Your task to perform on an android device: Search for the best rated phone case for the iPhone 8. Image 0: 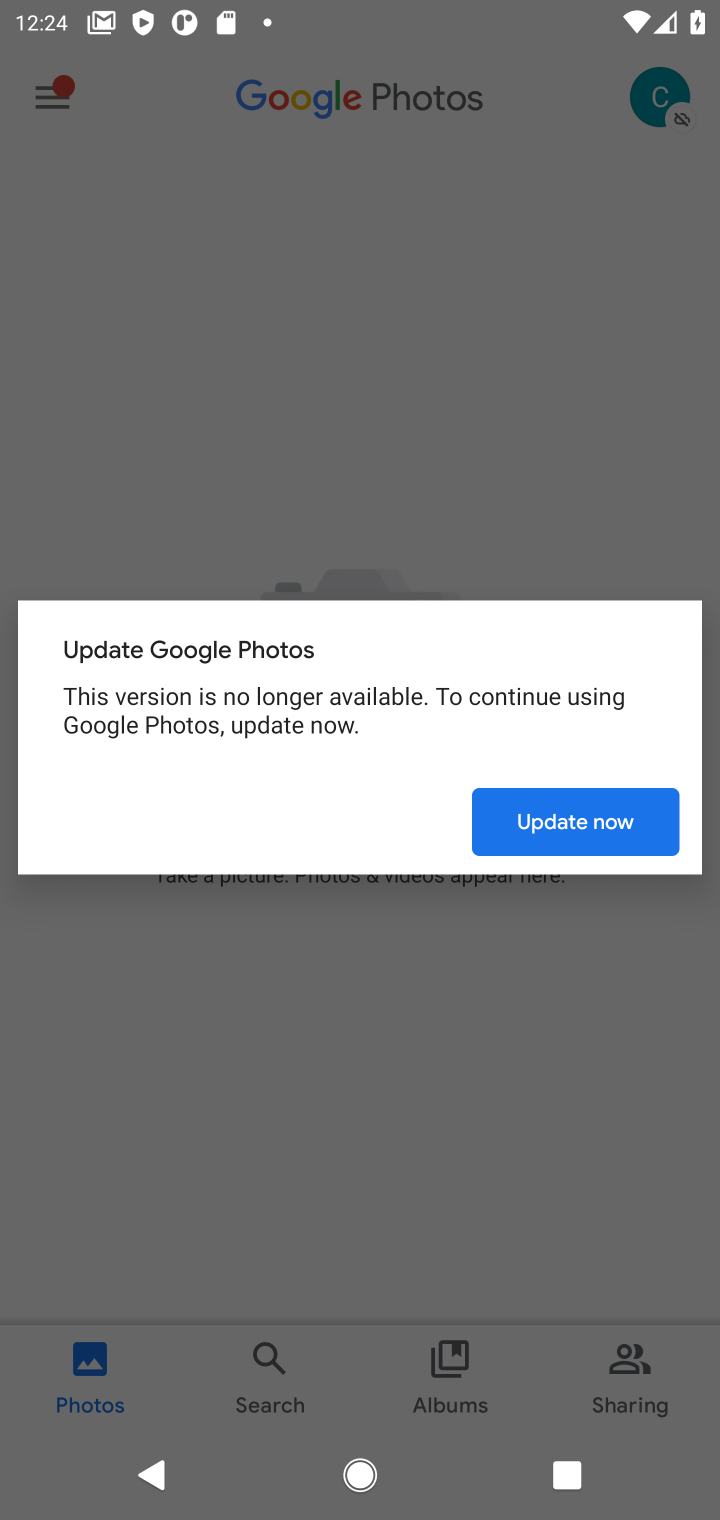
Step 0: press home button
Your task to perform on an android device: Search for the best rated phone case for the iPhone 8. Image 1: 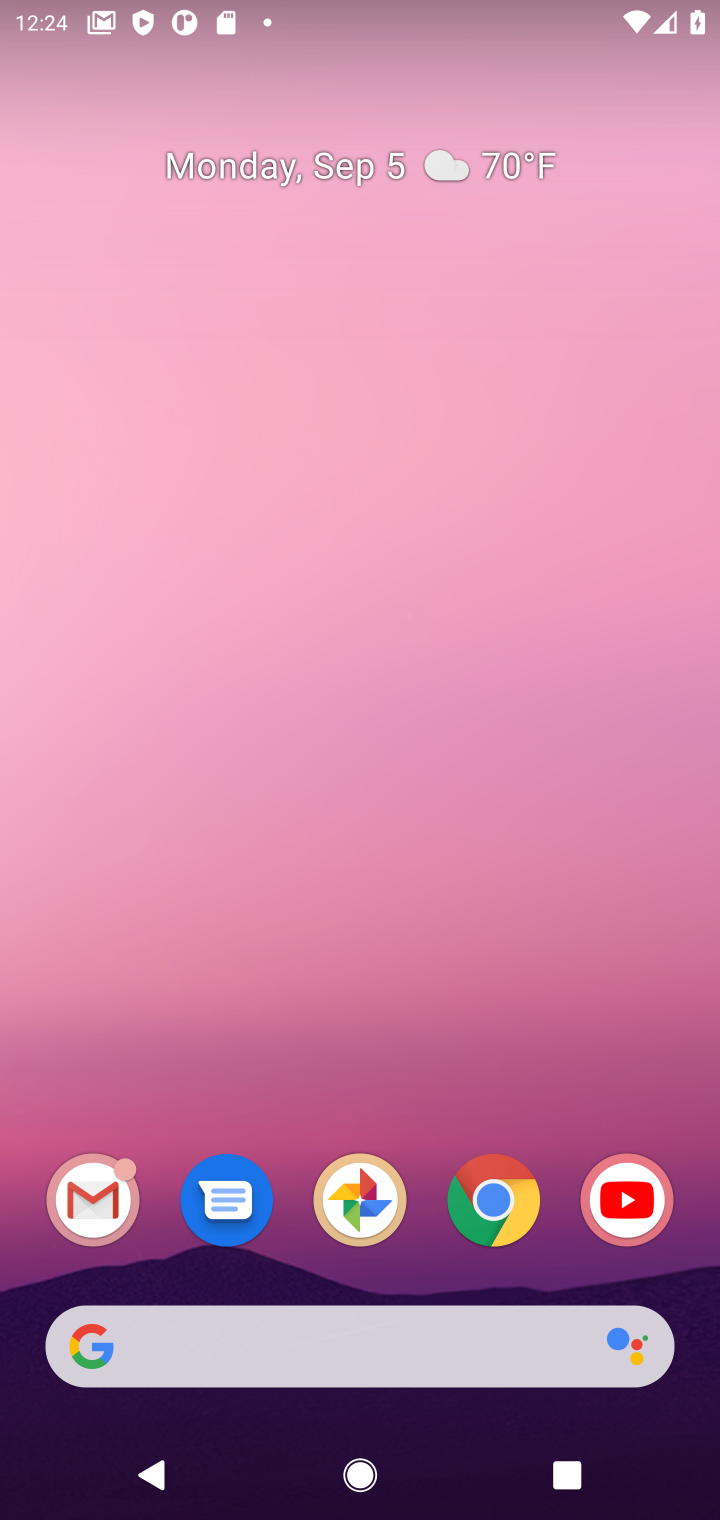
Step 1: click (330, 1222)
Your task to perform on an android device: Search for the best rated phone case for the iPhone 8. Image 2: 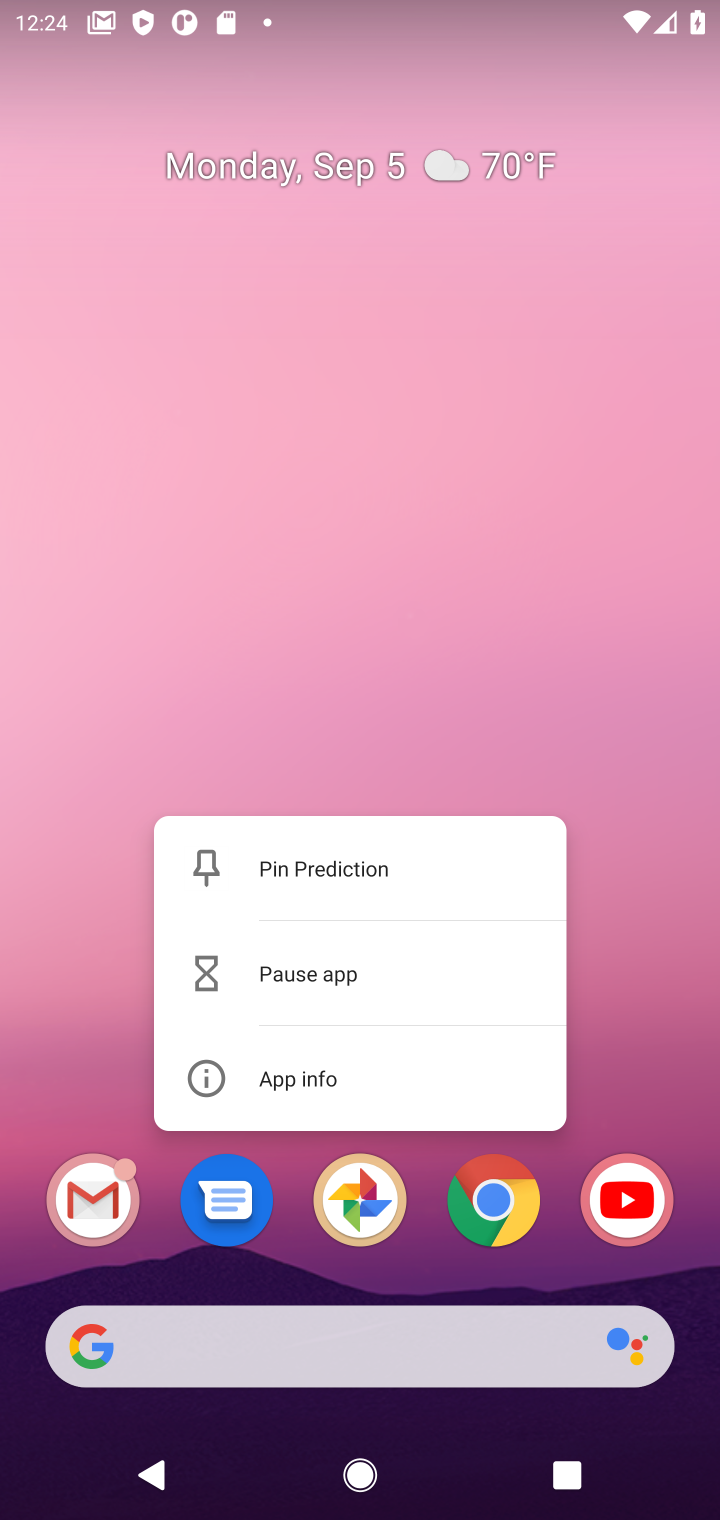
Step 2: click (497, 469)
Your task to perform on an android device: Search for the best rated phone case for the iPhone 8. Image 3: 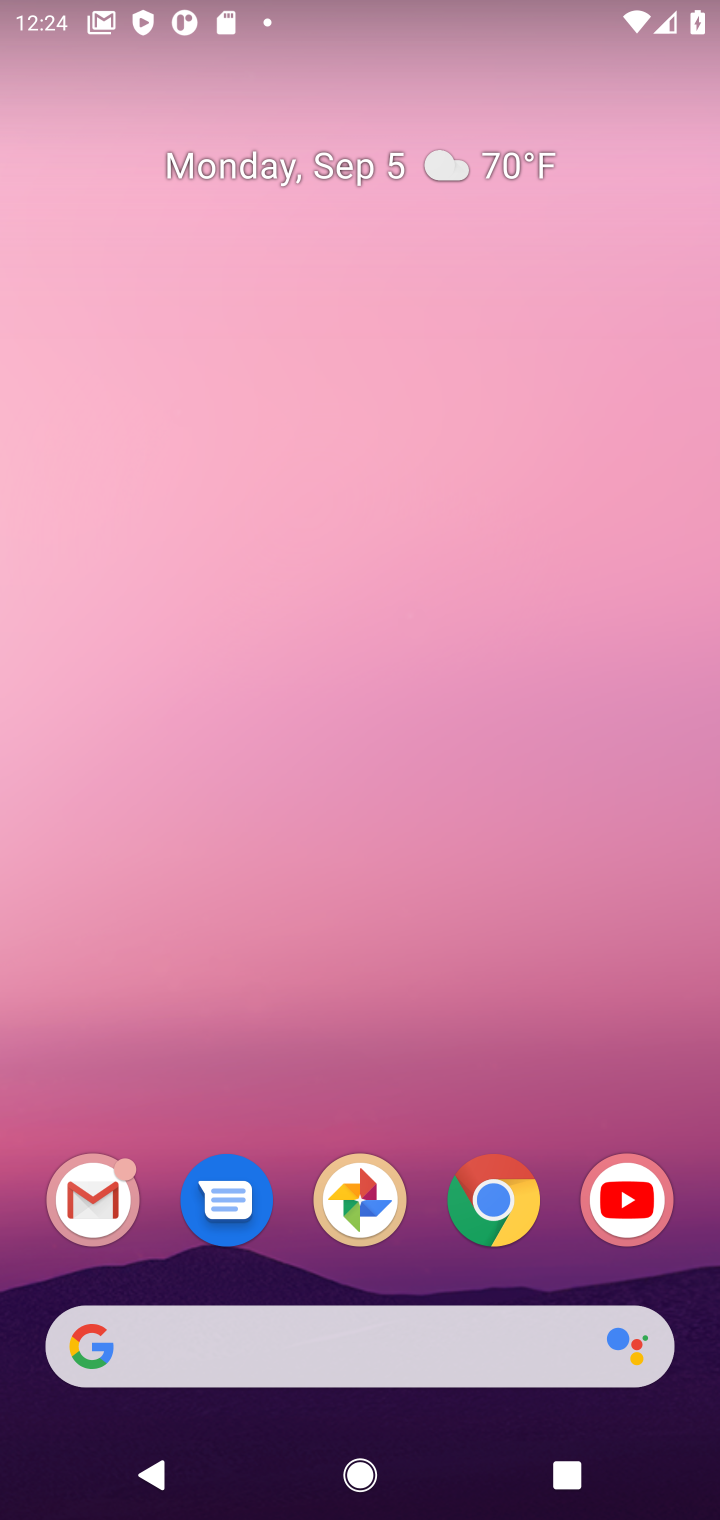
Step 3: click (480, 1199)
Your task to perform on an android device: Search for the best rated phone case for the iPhone 8. Image 4: 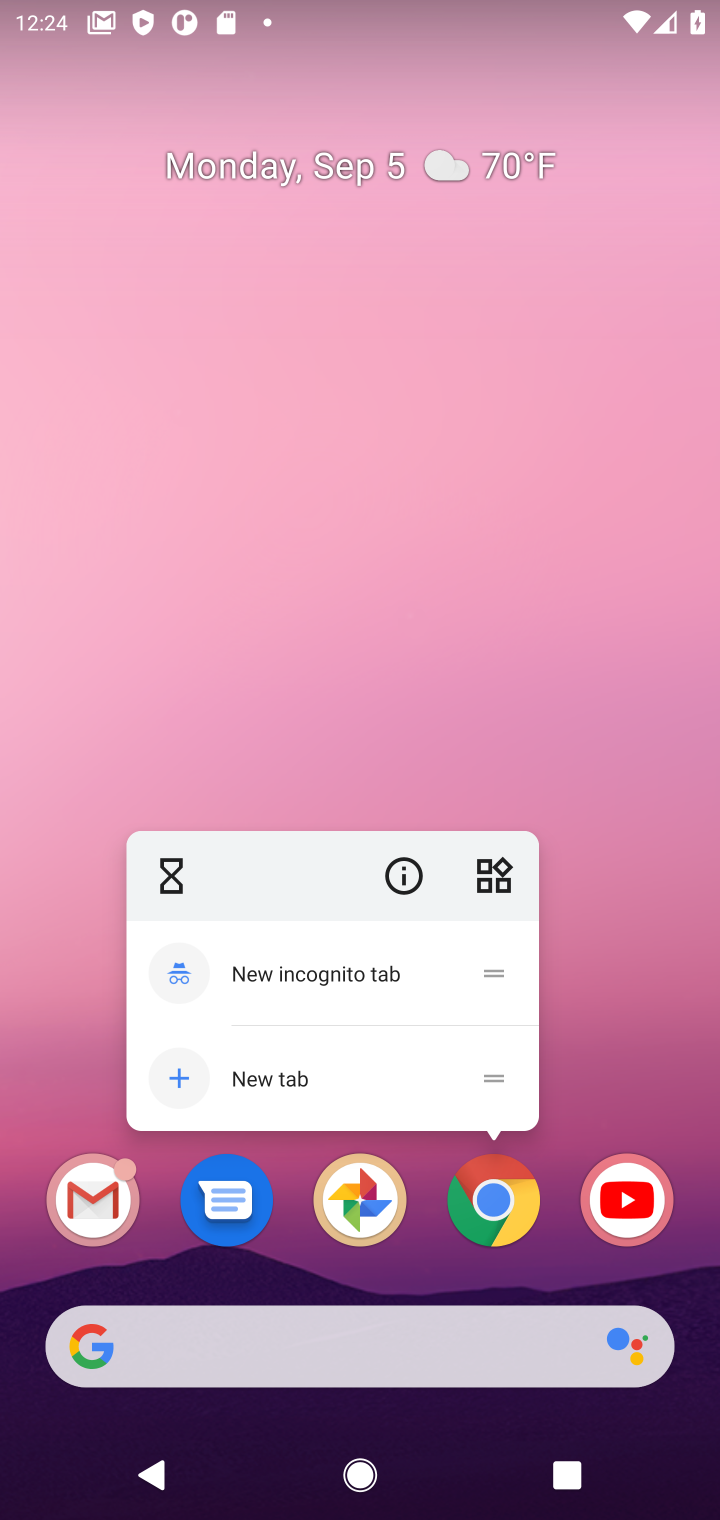
Step 4: click (480, 1199)
Your task to perform on an android device: Search for the best rated phone case for the iPhone 8. Image 5: 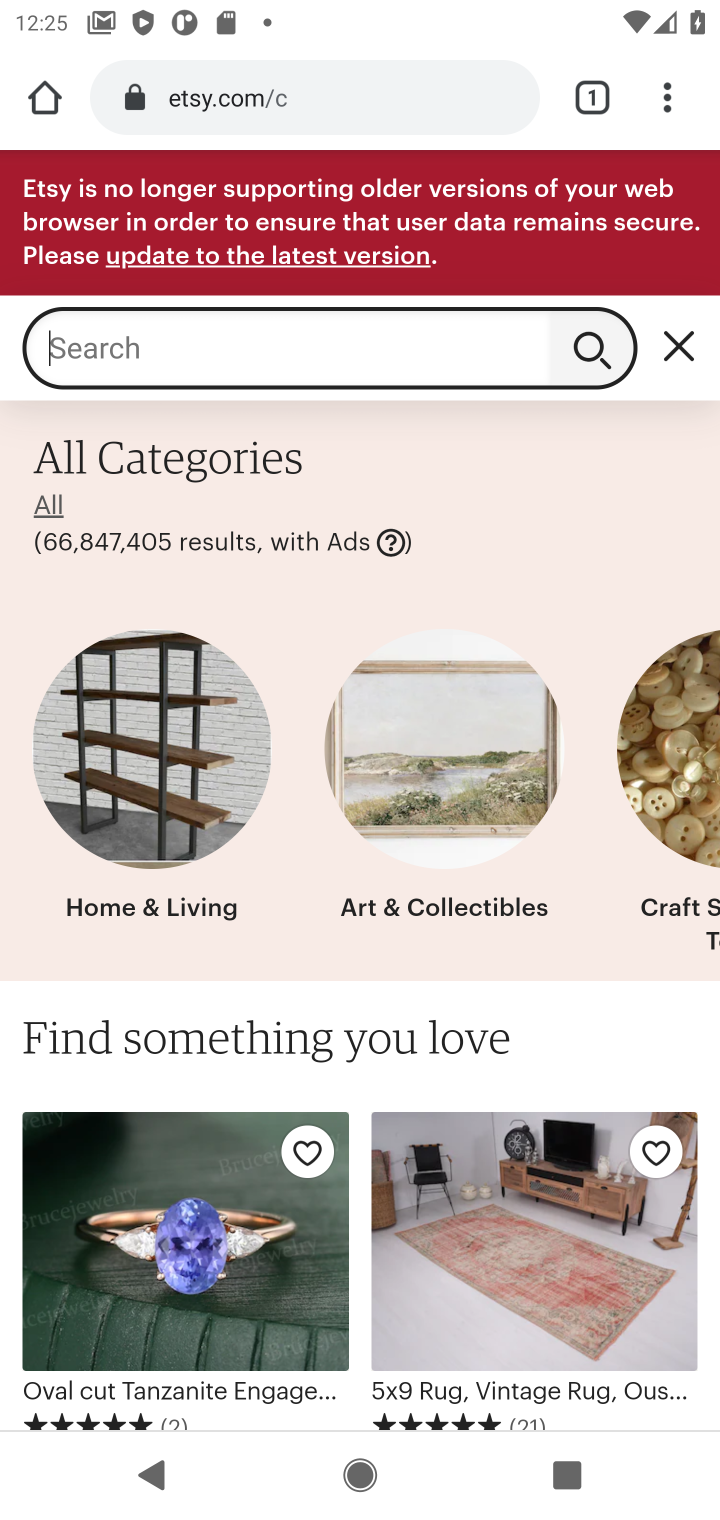
Step 5: click (410, 109)
Your task to perform on an android device: Search for the best rated phone case for the iPhone 8. Image 6: 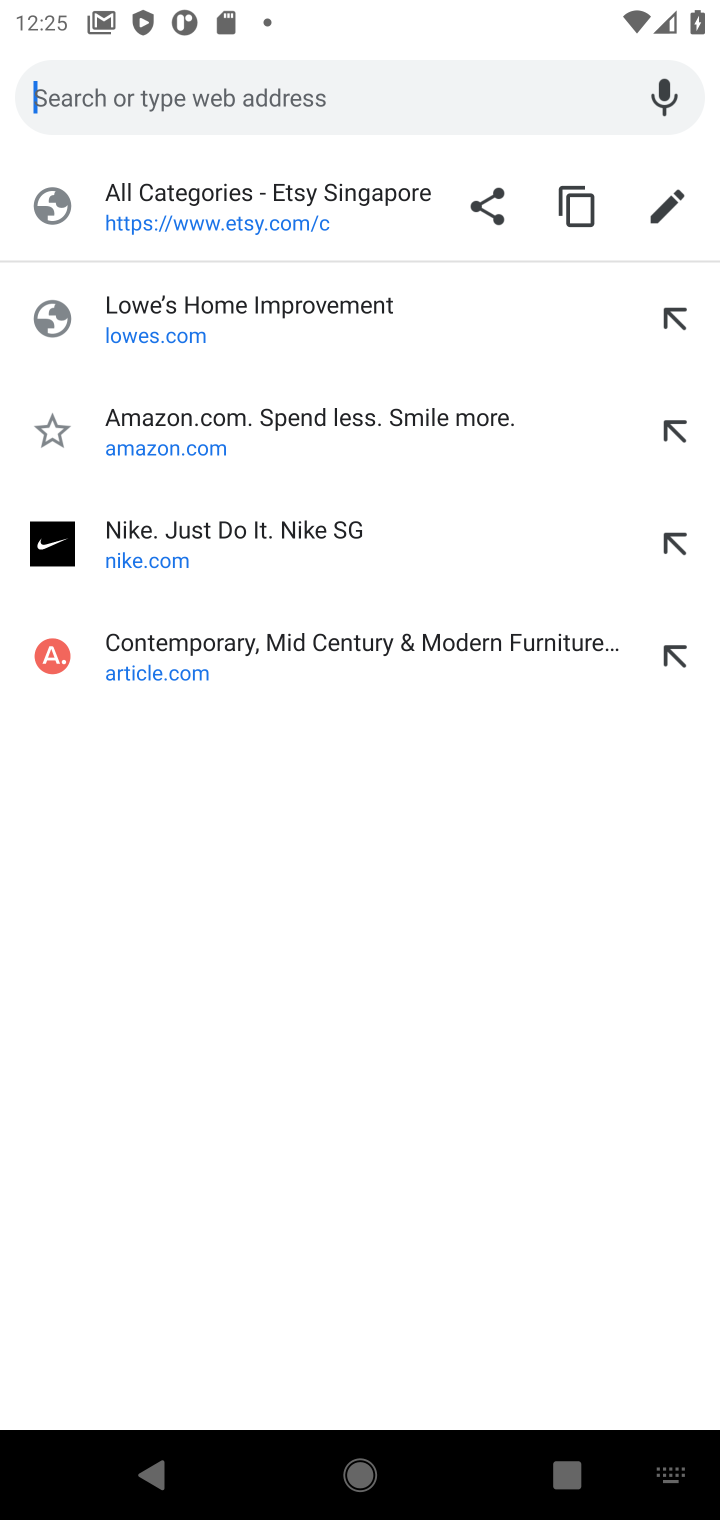
Step 6: type "best rated phone case for iphone 8"
Your task to perform on an android device: Search for the best rated phone case for the iPhone 8. Image 7: 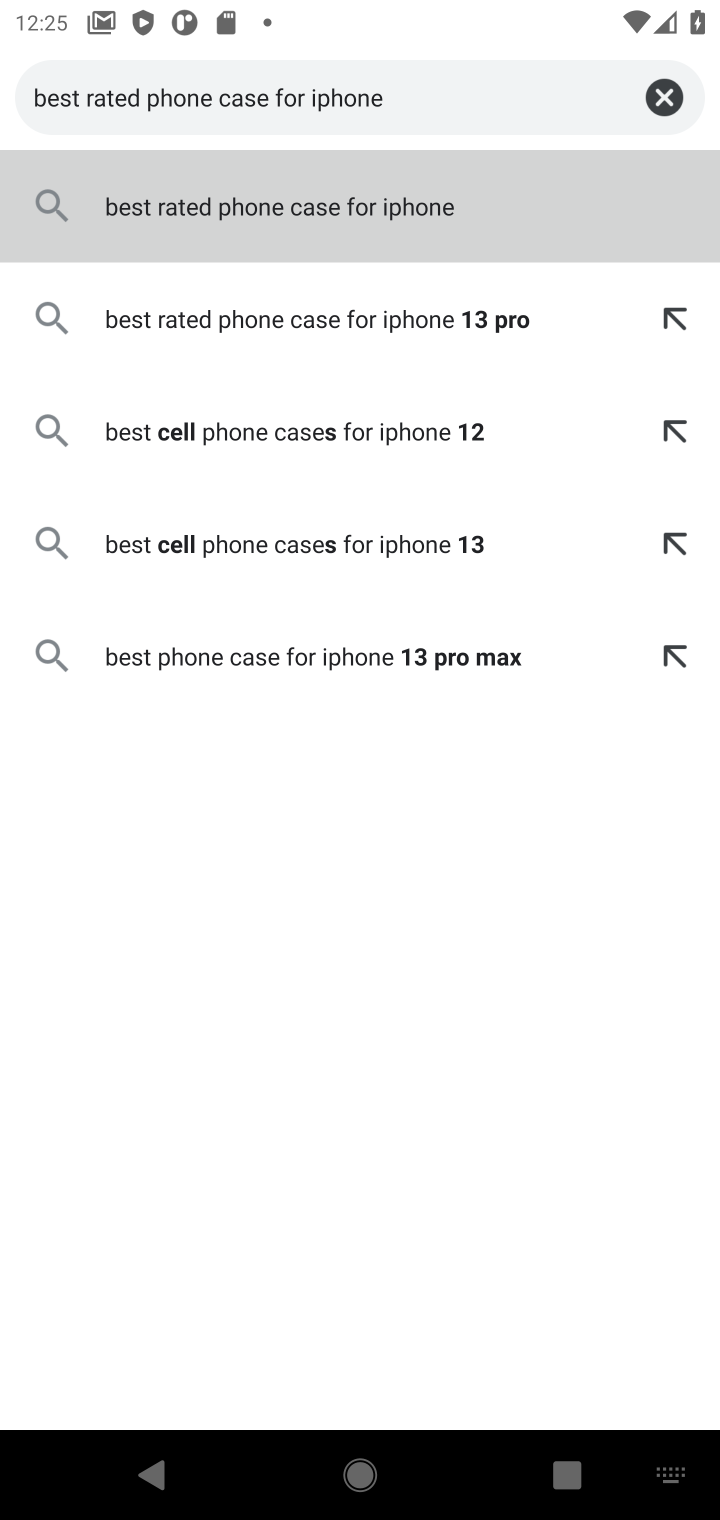
Step 7: type " 8"
Your task to perform on an android device: Search for the best rated phone case for the iPhone 8. Image 8: 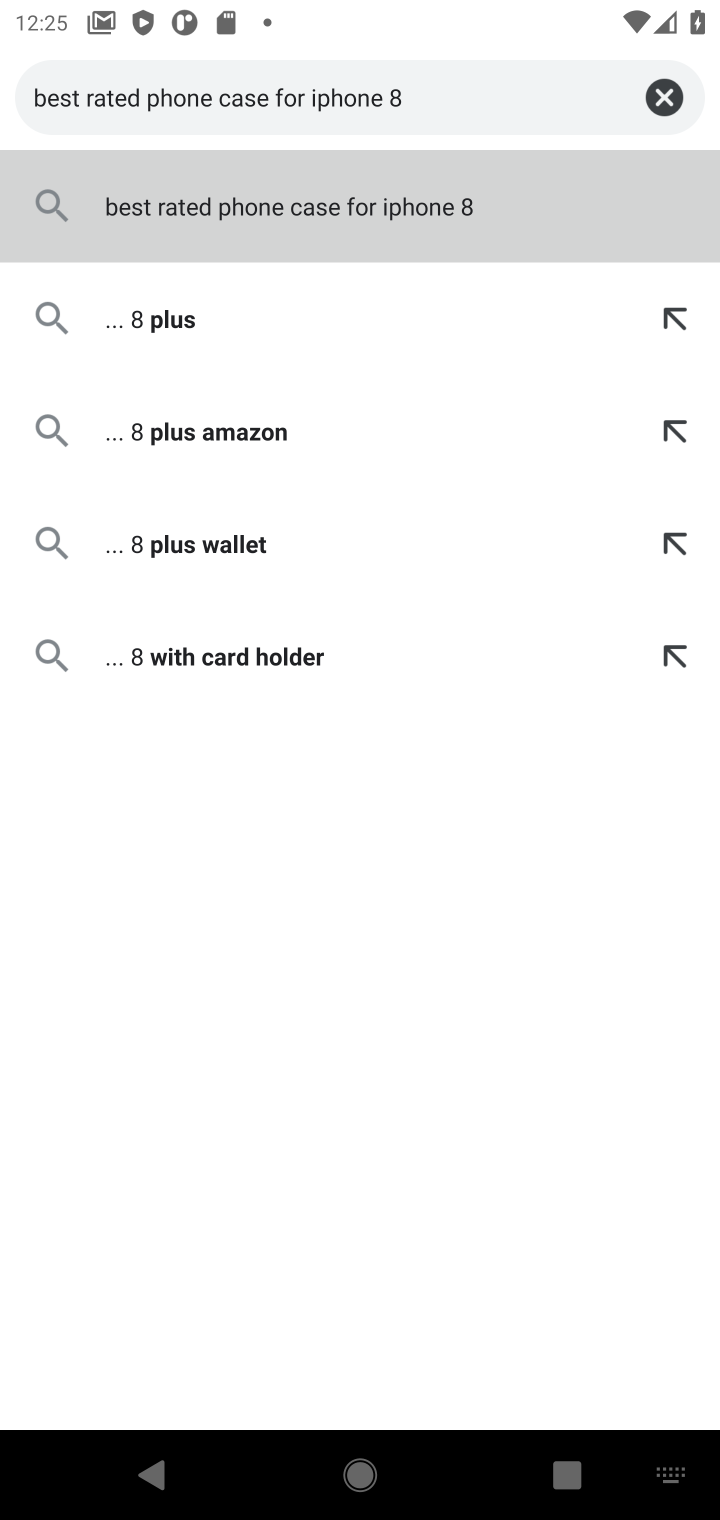
Step 8: click (477, 223)
Your task to perform on an android device: Search for the best rated phone case for the iPhone 8. Image 9: 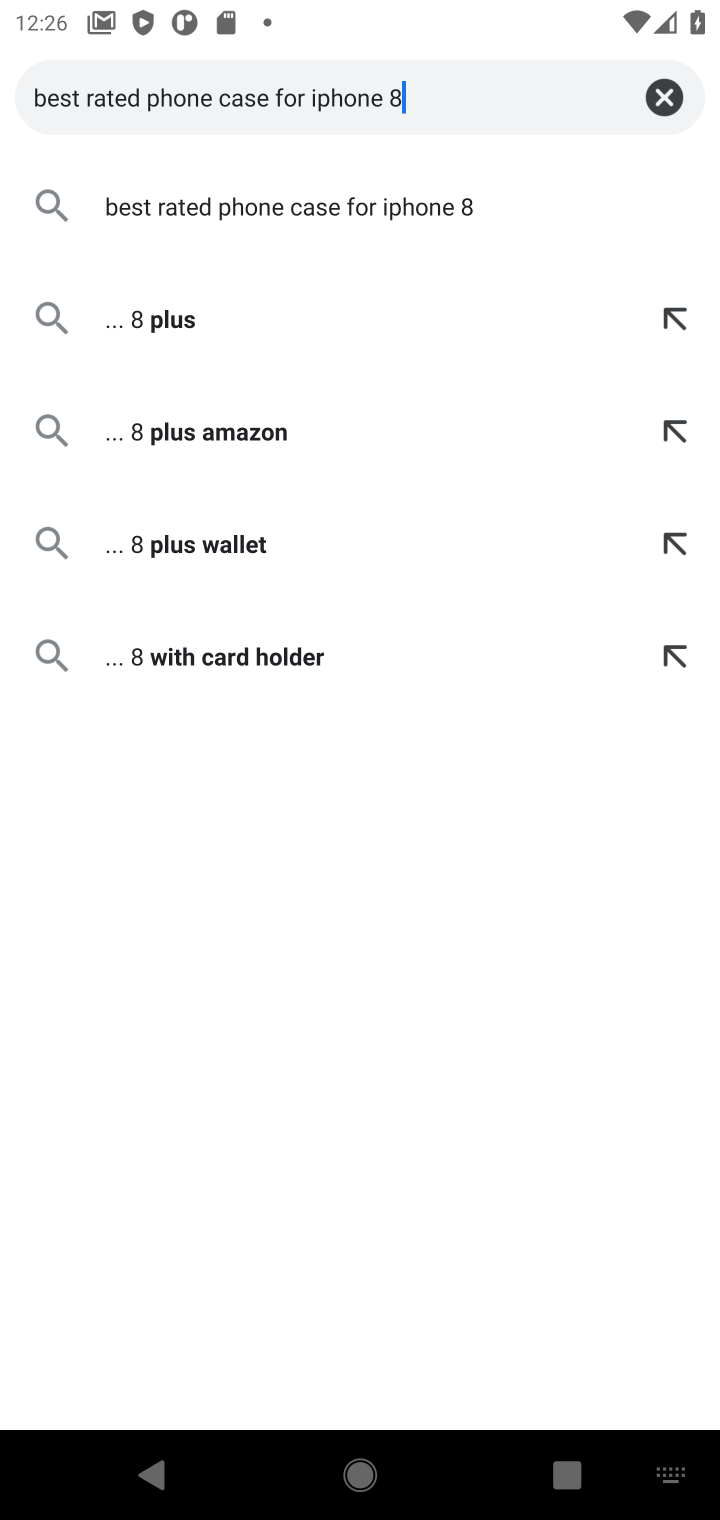
Step 9: click (301, 209)
Your task to perform on an android device: Search for the best rated phone case for the iPhone 8. Image 10: 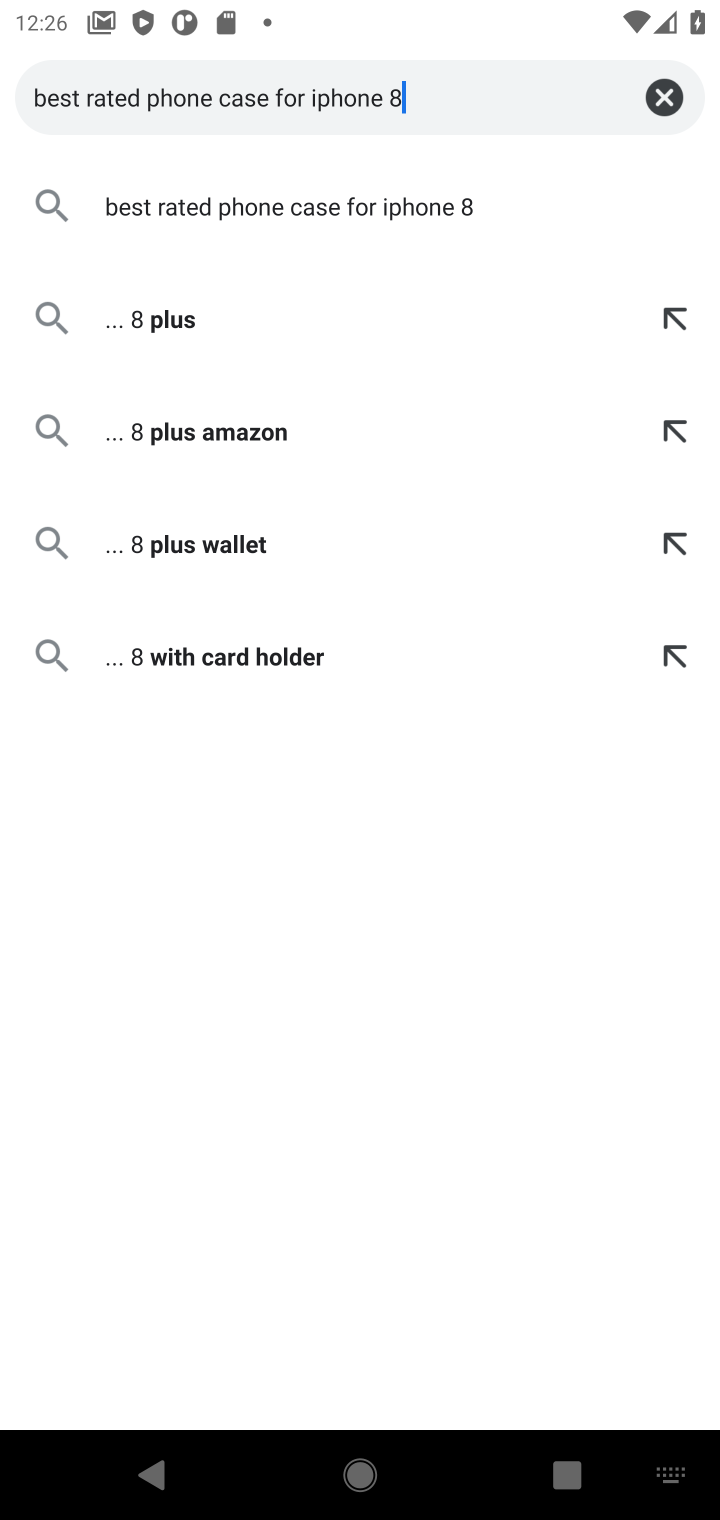
Step 10: click (301, 209)
Your task to perform on an android device: Search for the best rated phone case for the iPhone 8. Image 11: 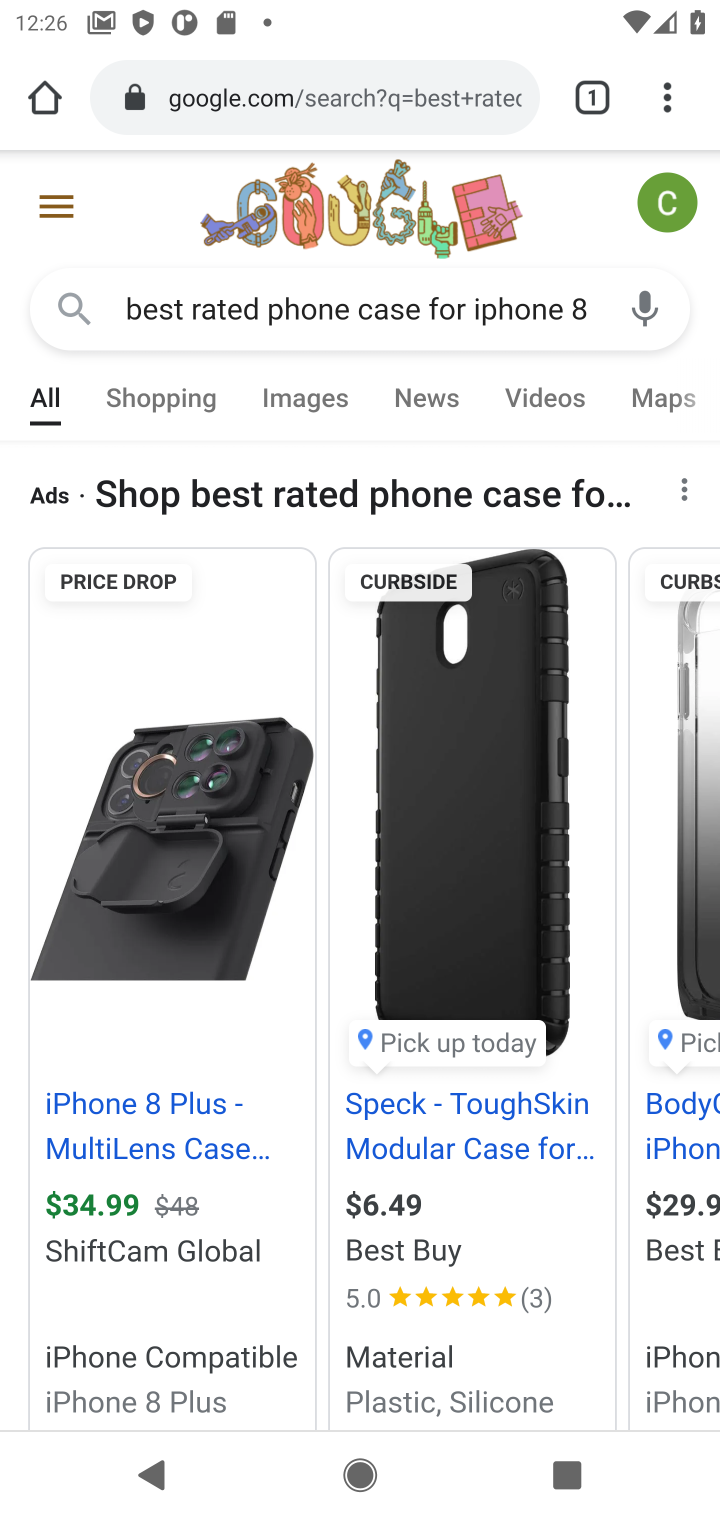
Step 11: task complete